Your task to perform on an android device: delete a single message in the gmail app Image 0: 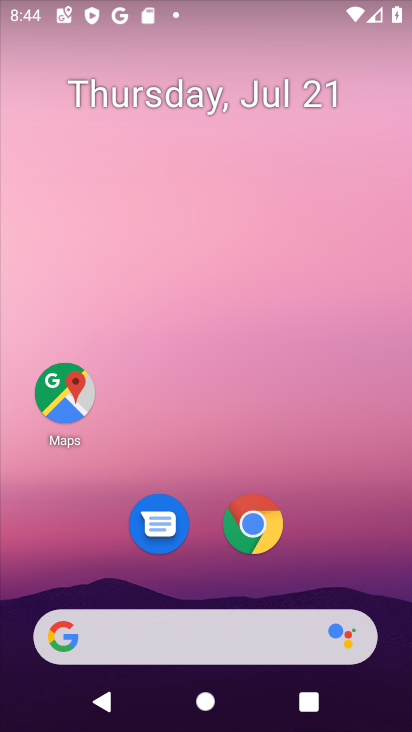
Step 0: drag from (203, 626) to (353, 53)
Your task to perform on an android device: delete a single message in the gmail app Image 1: 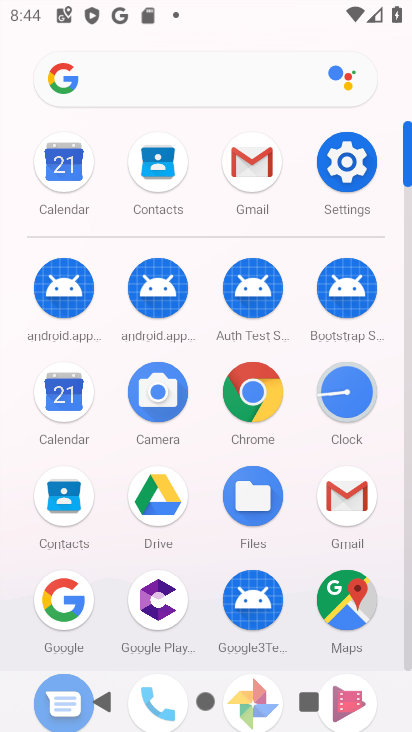
Step 1: click (245, 172)
Your task to perform on an android device: delete a single message in the gmail app Image 2: 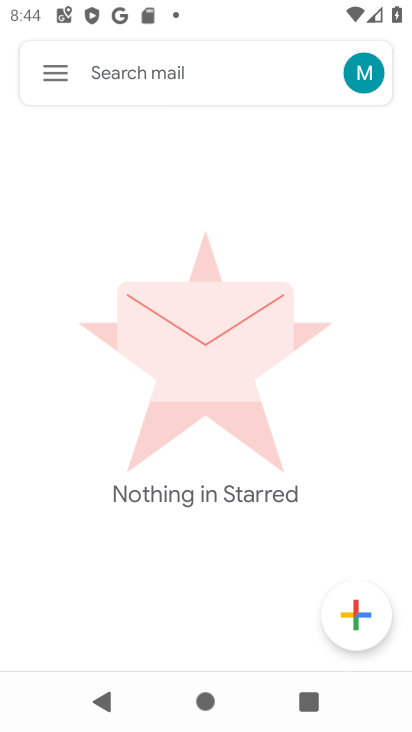
Step 2: click (59, 66)
Your task to perform on an android device: delete a single message in the gmail app Image 3: 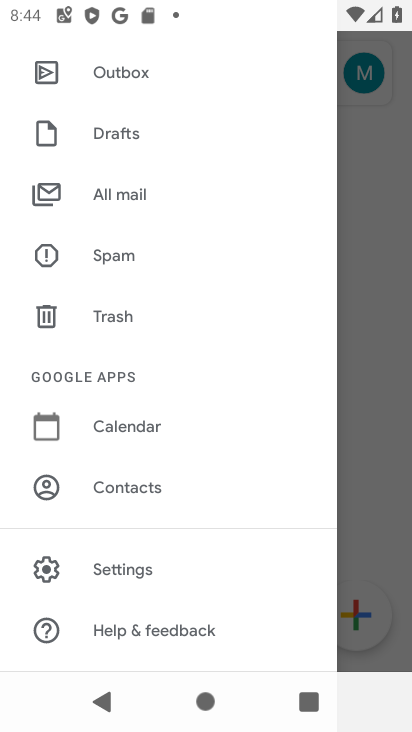
Step 3: drag from (249, 129) to (175, 578)
Your task to perform on an android device: delete a single message in the gmail app Image 4: 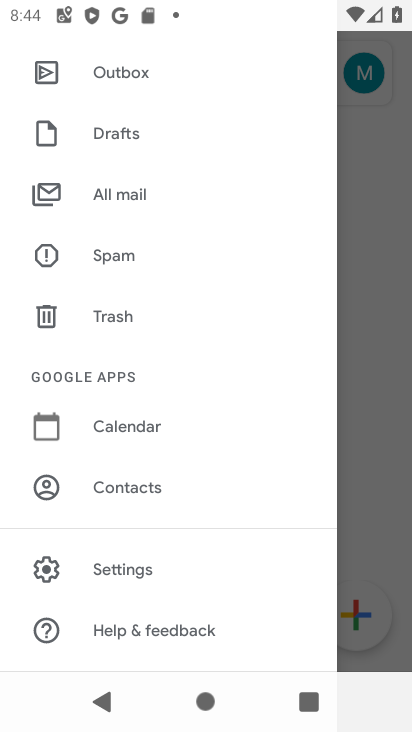
Step 4: drag from (109, 90) to (79, 588)
Your task to perform on an android device: delete a single message in the gmail app Image 5: 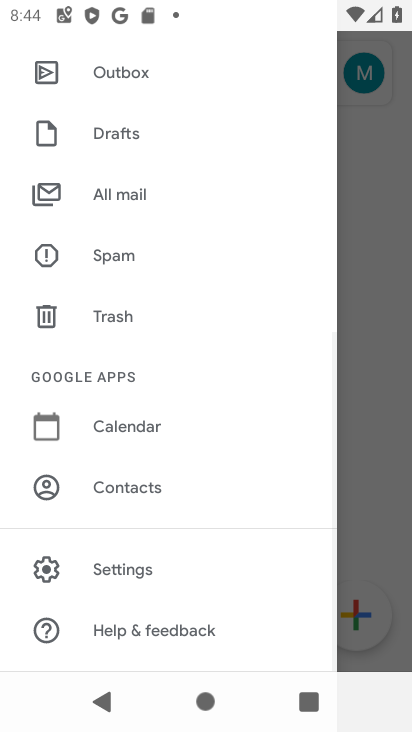
Step 5: drag from (195, 106) to (174, 648)
Your task to perform on an android device: delete a single message in the gmail app Image 6: 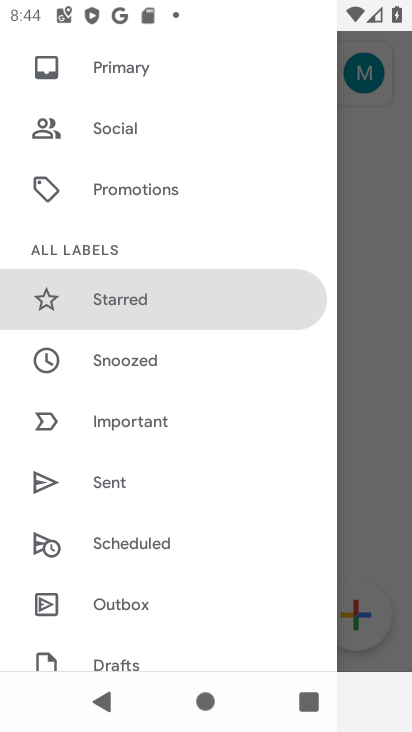
Step 6: drag from (205, 103) to (194, 679)
Your task to perform on an android device: delete a single message in the gmail app Image 7: 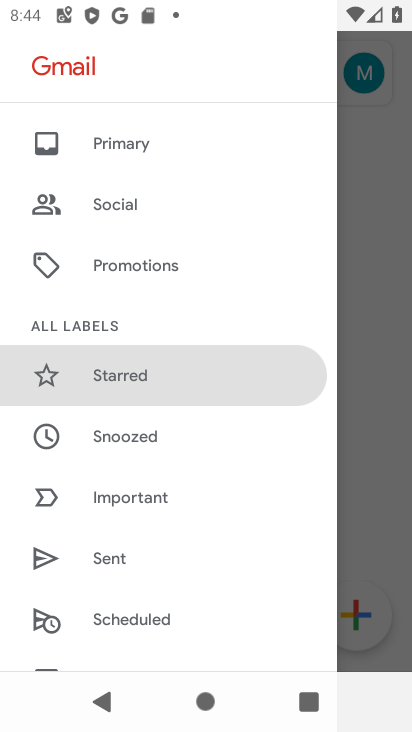
Step 7: click (146, 140)
Your task to perform on an android device: delete a single message in the gmail app Image 8: 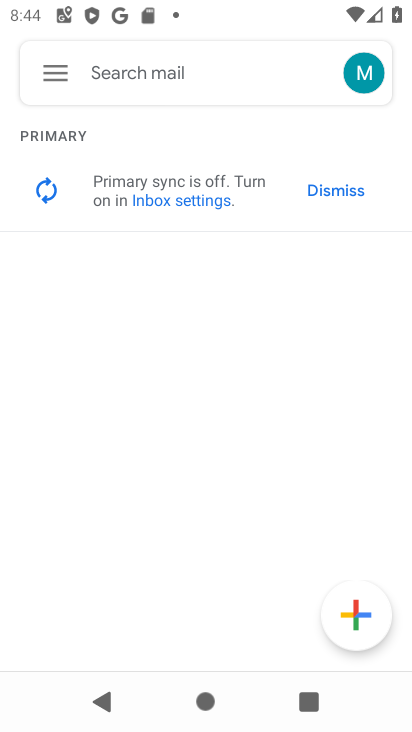
Step 8: task complete